Your task to perform on an android device: add a contact in the contacts app Image 0: 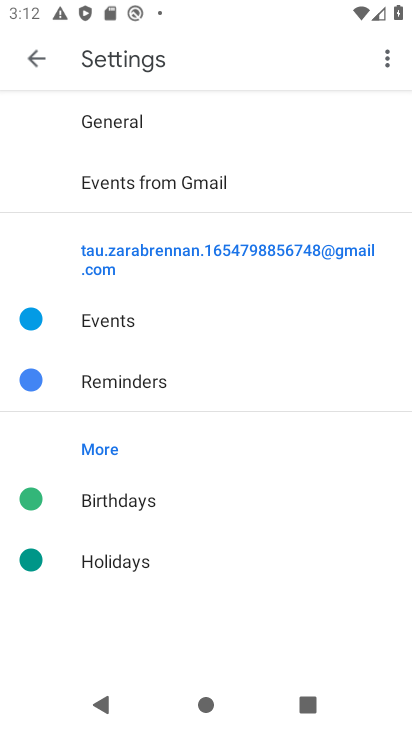
Step 0: press home button
Your task to perform on an android device: add a contact in the contacts app Image 1: 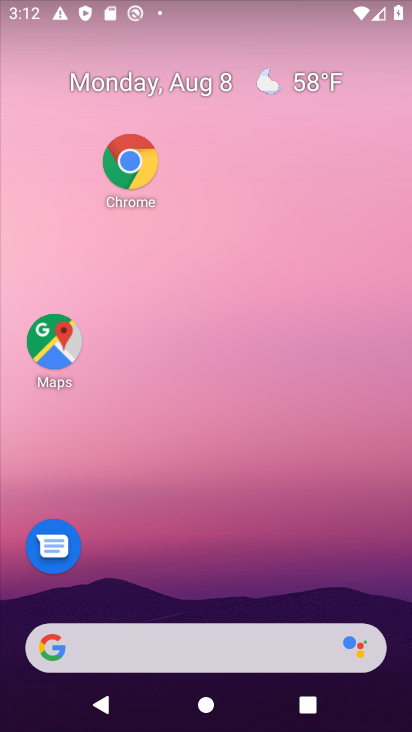
Step 1: drag from (156, 600) to (298, 410)
Your task to perform on an android device: add a contact in the contacts app Image 2: 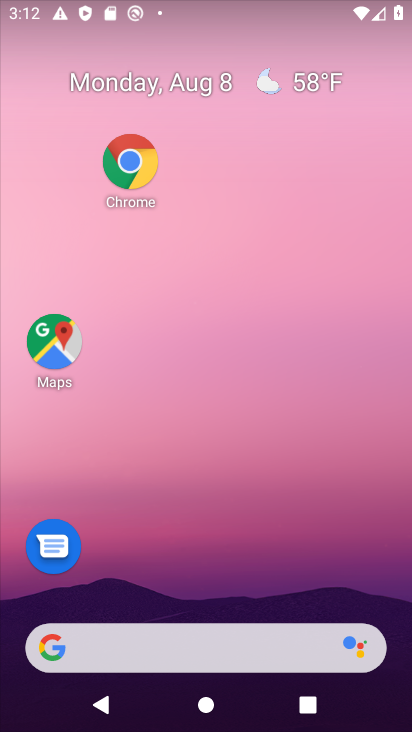
Step 2: drag from (133, 571) to (288, 27)
Your task to perform on an android device: add a contact in the contacts app Image 3: 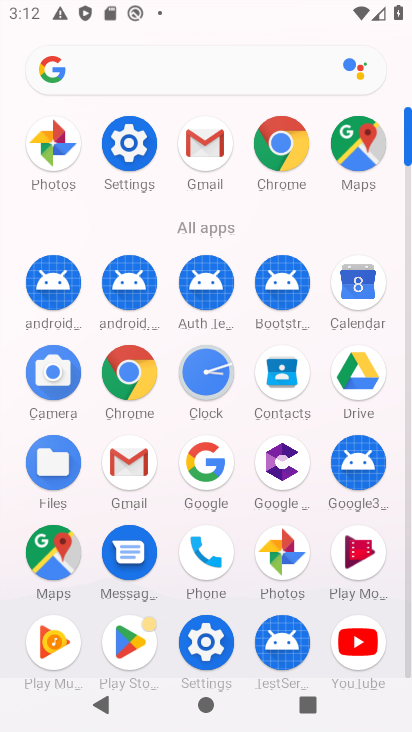
Step 3: click (282, 382)
Your task to perform on an android device: add a contact in the contacts app Image 4: 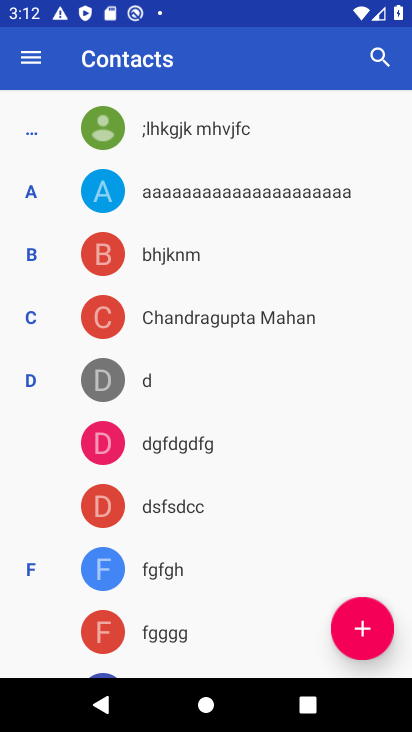
Step 4: click (349, 612)
Your task to perform on an android device: add a contact in the contacts app Image 5: 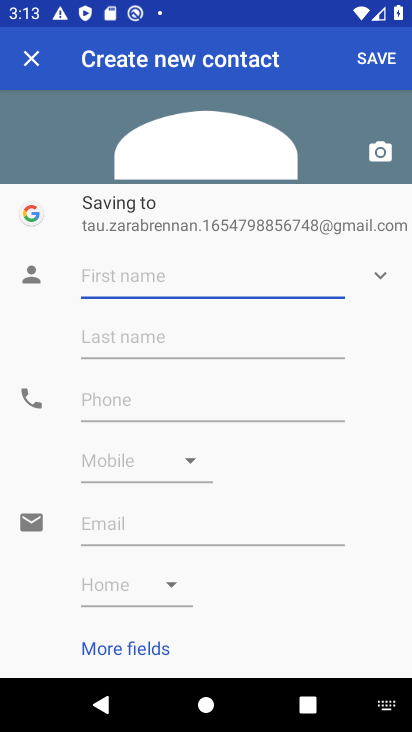
Step 5: type "iuytfrds"
Your task to perform on an android device: add a contact in the contacts app Image 6: 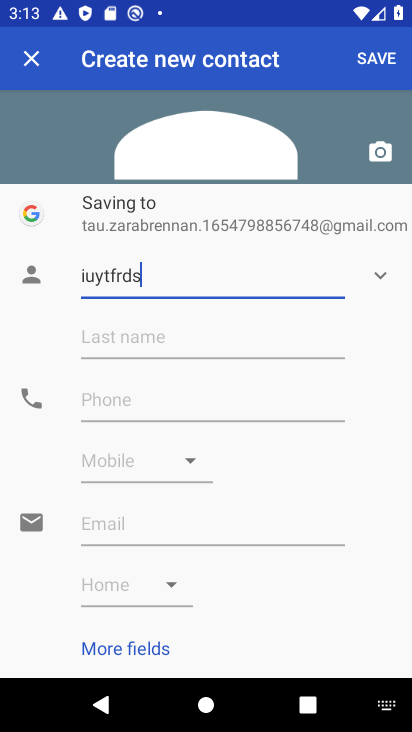
Step 6: click (92, 410)
Your task to perform on an android device: add a contact in the contacts app Image 7: 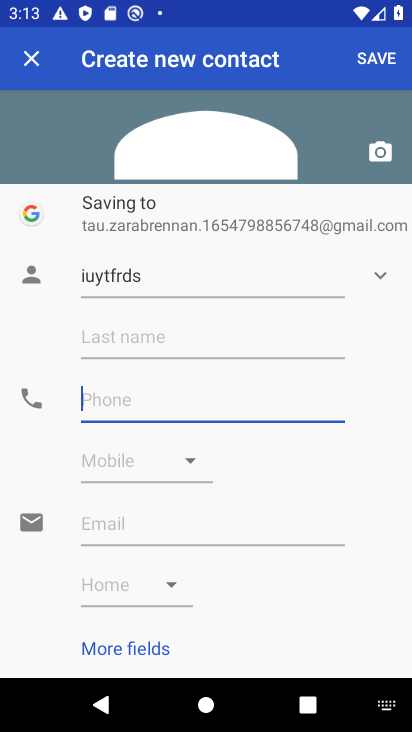
Step 7: type "o9876543"
Your task to perform on an android device: add a contact in the contacts app Image 8: 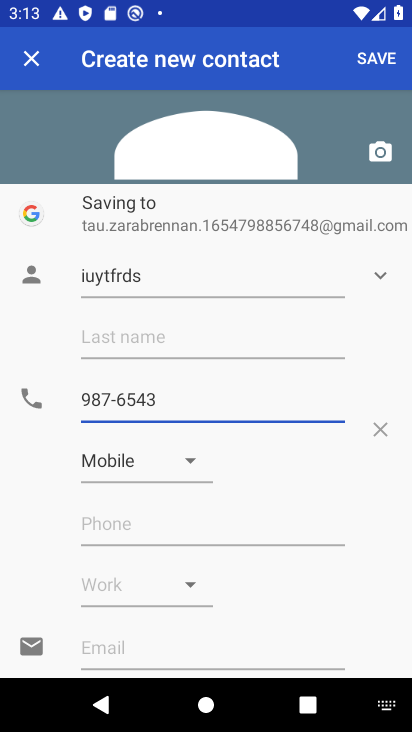
Step 8: click (379, 57)
Your task to perform on an android device: add a contact in the contacts app Image 9: 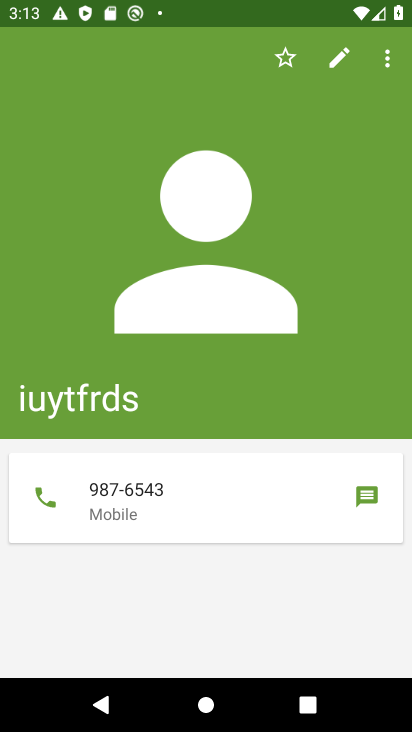
Step 9: task complete